Your task to perform on an android device: turn notification dots on Image 0: 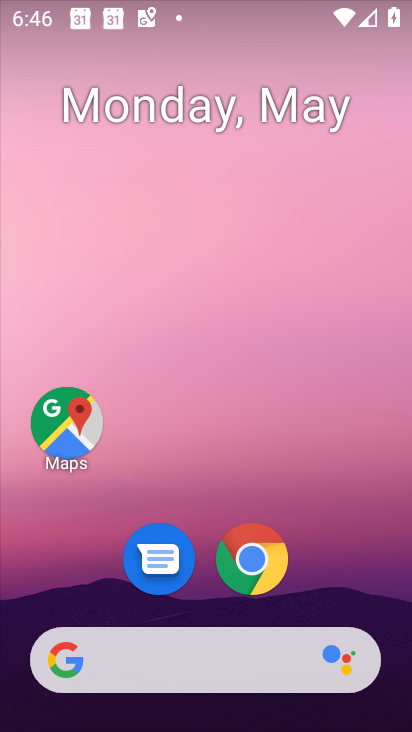
Step 0: drag from (393, 666) to (287, 117)
Your task to perform on an android device: turn notification dots on Image 1: 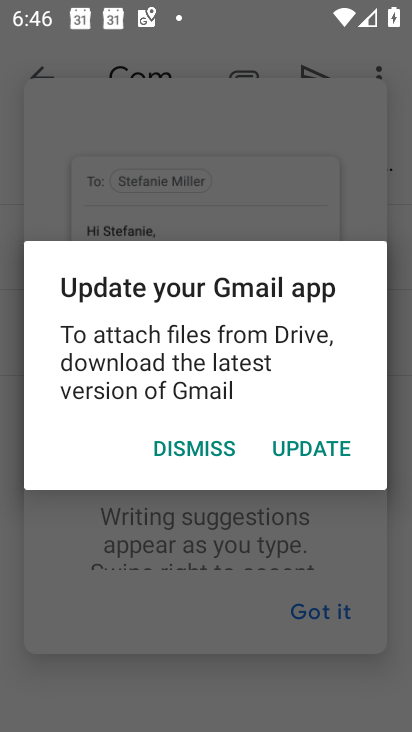
Step 1: press home button
Your task to perform on an android device: turn notification dots on Image 2: 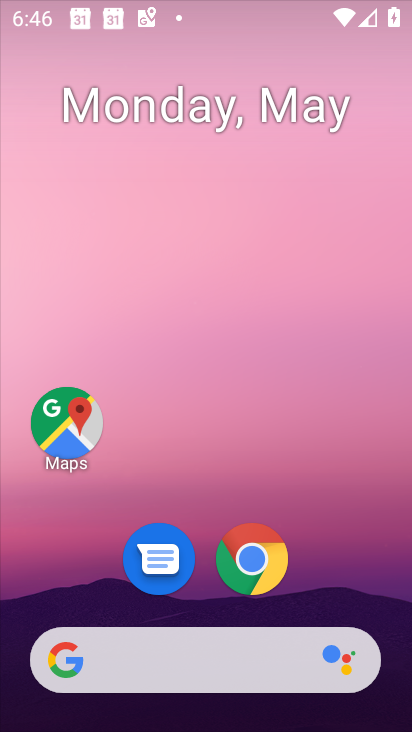
Step 2: drag from (390, 674) to (323, 55)
Your task to perform on an android device: turn notification dots on Image 3: 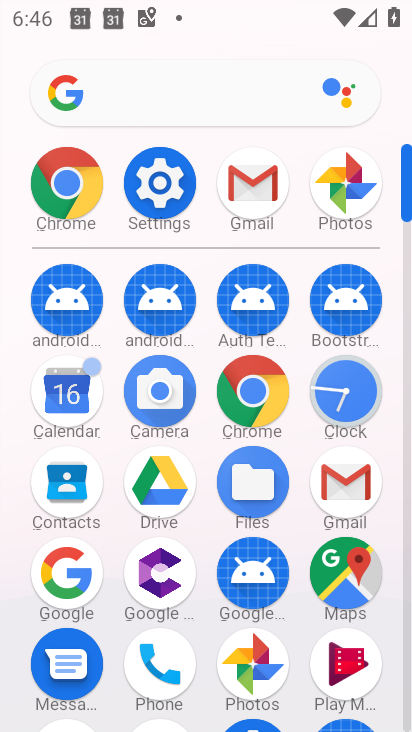
Step 3: click (185, 183)
Your task to perform on an android device: turn notification dots on Image 4: 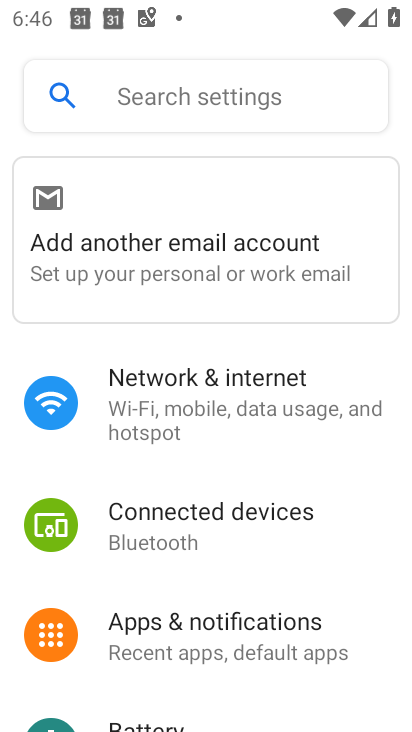
Step 4: click (251, 654)
Your task to perform on an android device: turn notification dots on Image 5: 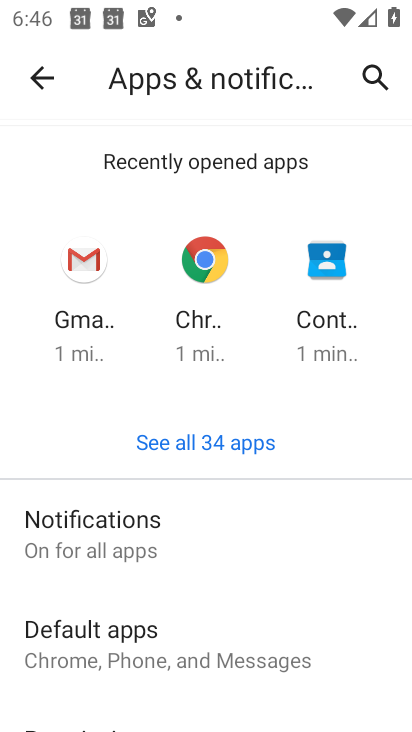
Step 5: click (106, 519)
Your task to perform on an android device: turn notification dots on Image 6: 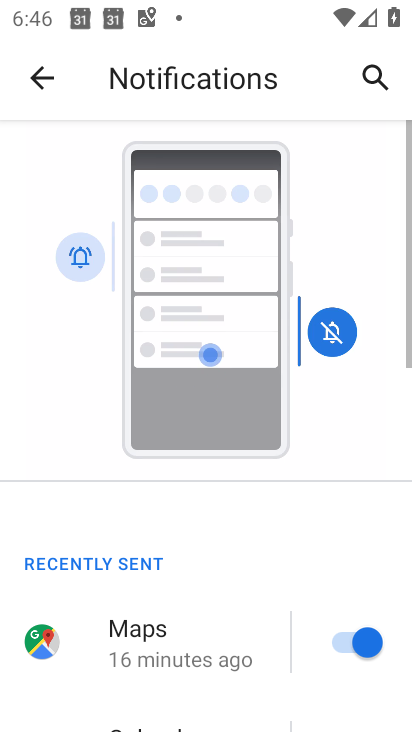
Step 6: drag from (147, 673) to (185, 91)
Your task to perform on an android device: turn notification dots on Image 7: 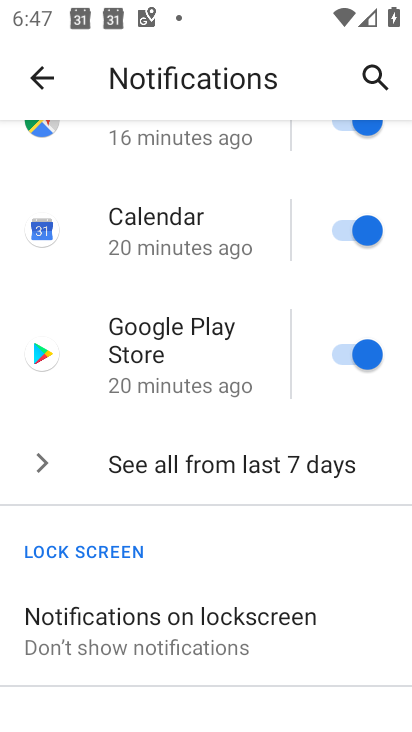
Step 7: drag from (178, 650) to (221, 266)
Your task to perform on an android device: turn notification dots on Image 8: 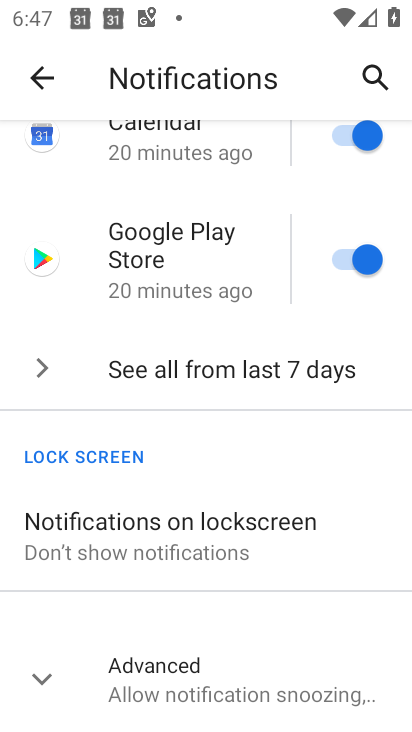
Step 8: click (158, 663)
Your task to perform on an android device: turn notification dots on Image 9: 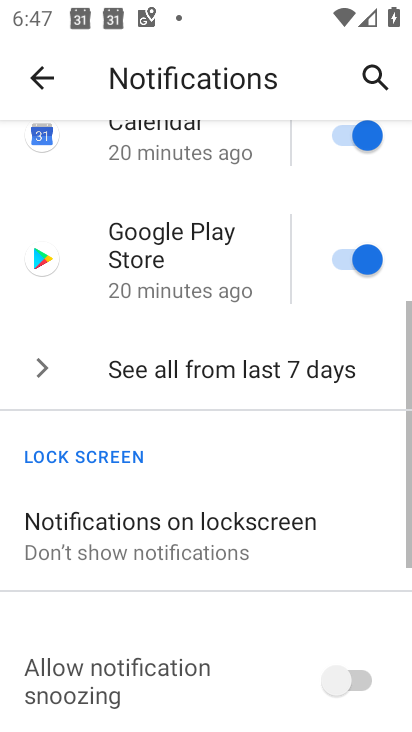
Step 9: task complete